Your task to perform on an android device: Go to CNN.com Image 0: 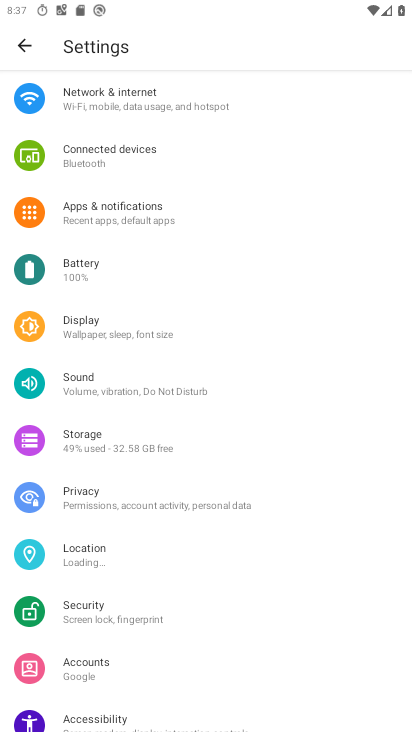
Step 0: press home button
Your task to perform on an android device: Go to CNN.com Image 1: 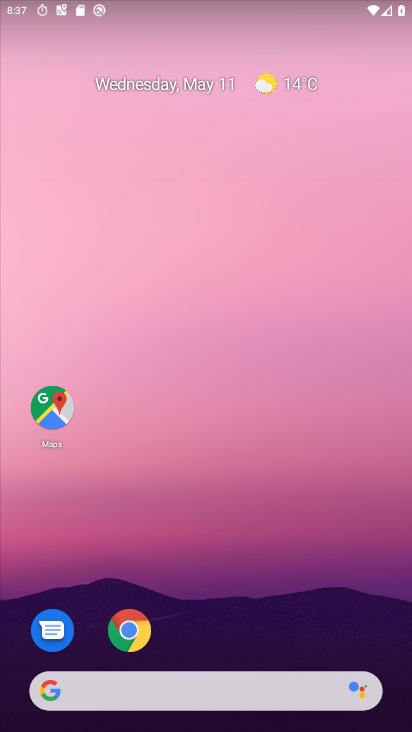
Step 1: click (138, 633)
Your task to perform on an android device: Go to CNN.com Image 2: 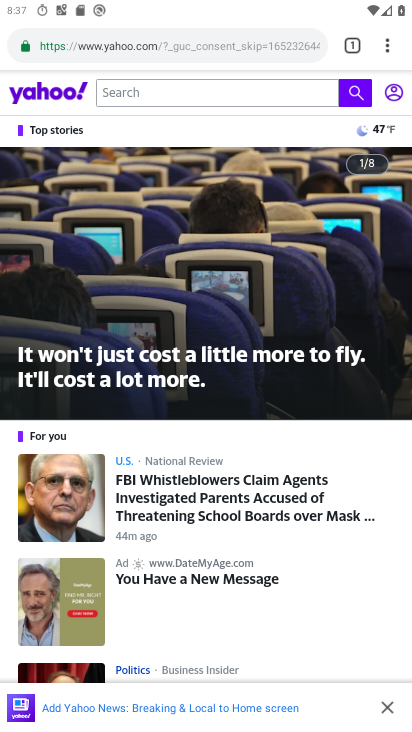
Step 2: click (349, 45)
Your task to perform on an android device: Go to CNN.com Image 3: 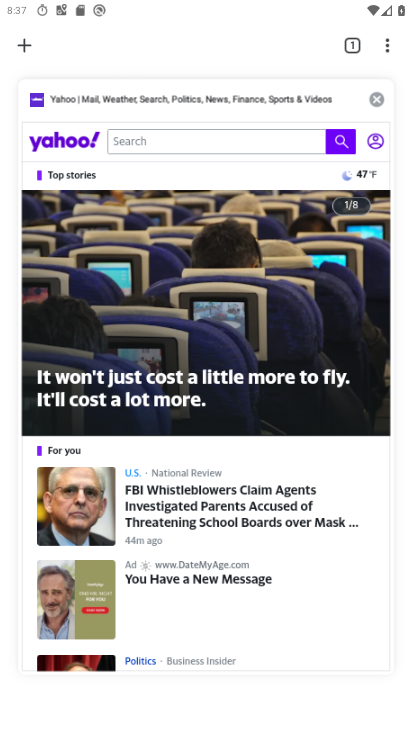
Step 3: click (381, 97)
Your task to perform on an android device: Go to CNN.com Image 4: 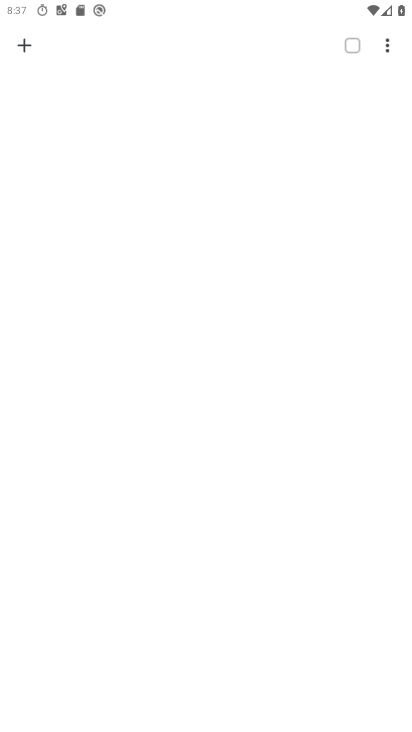
Step 4: click (24, 46)
Your task to perform on an android device: Go to CNN.com Image 5: 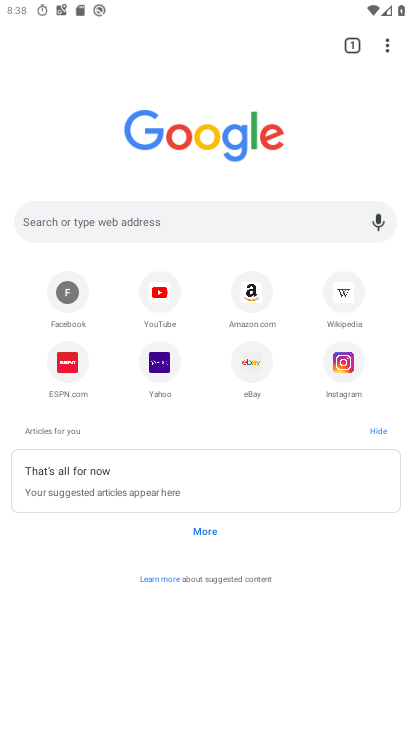
Step 5: click (170, 231)
Your task to perform on an android device: Go to CNN.com Image 6: 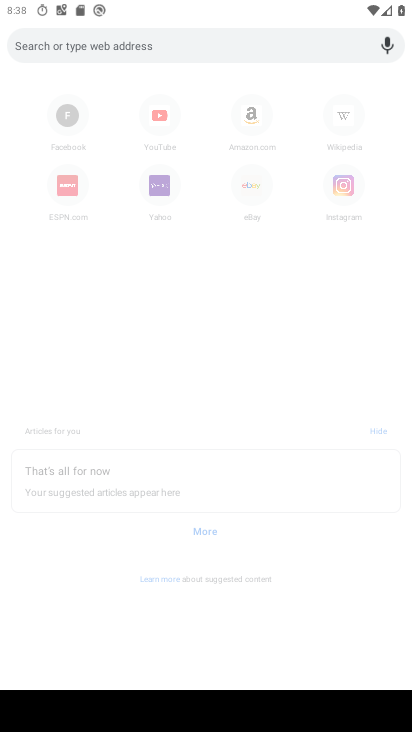
Step 6: type "CNN.com"
Your task to perform on an android device: Go to CNN.com Image 7: 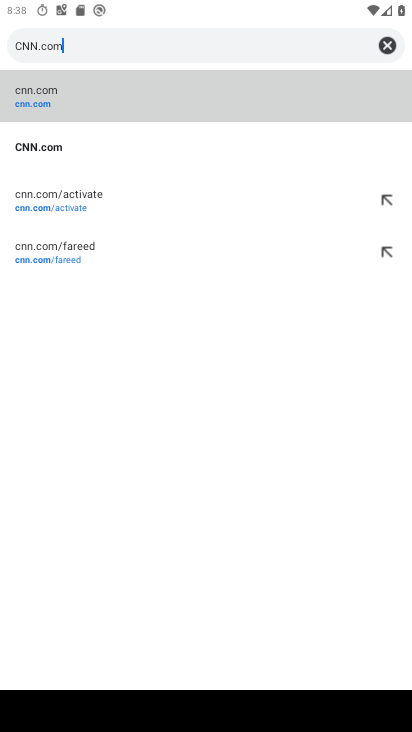
Step 7: type ""
Your task to perform on an android device: Go to CNN.com Image 8: 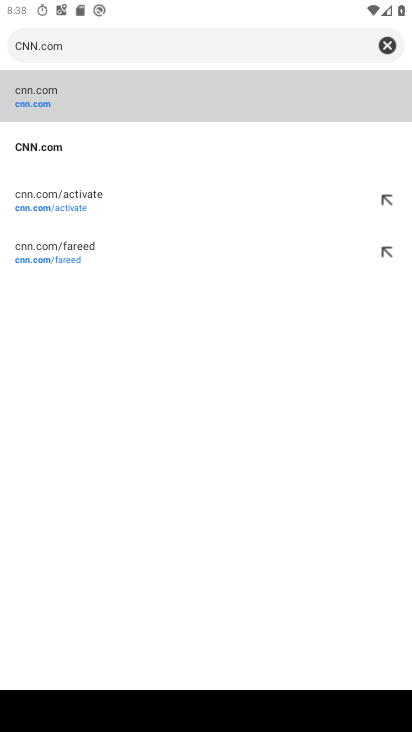
Step 8: click (15, 138)
Your task to perform on an android device: Go to CNN.com Image 9: 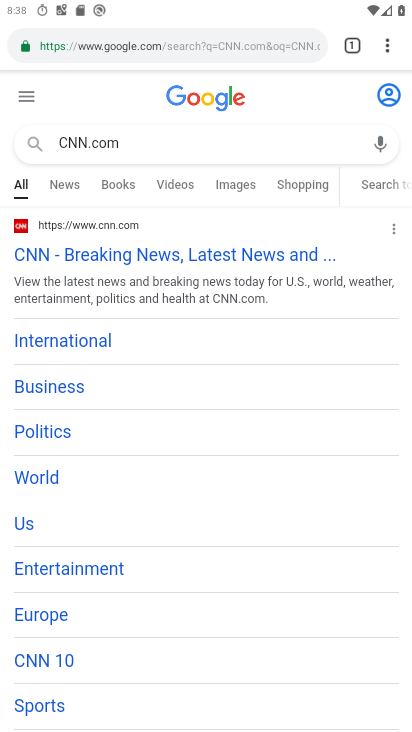
Step 9: click (29, 254)
Your task to perform on an android device: Go to CNN.com Image 10: 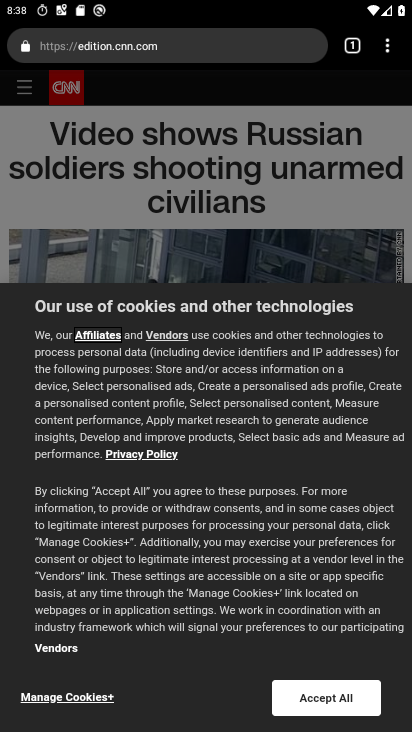
Step 10: task complete